Your task to perform on an android device: Open the web browser Image 0: 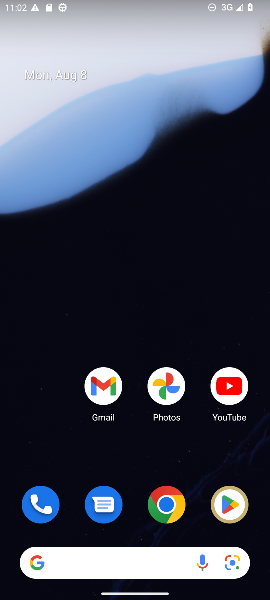
Step 0: click (157, 494)
Your task to perform on an android device: Open the web browser Image 1: 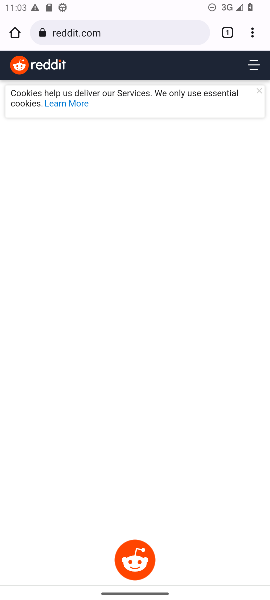
Step 1: task complete